Your task to perform on an android device: allow notifications from all sites in the chrome app Image 0: 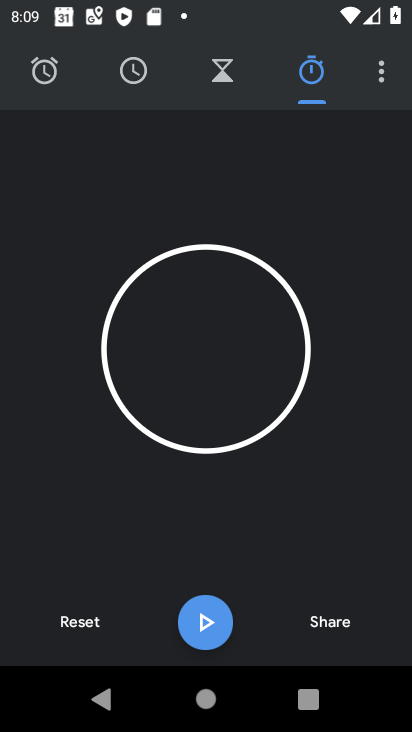
Step 0: press home button
Your task to perform on an android device: allow notifications from all sites in the chrome app Image 1: 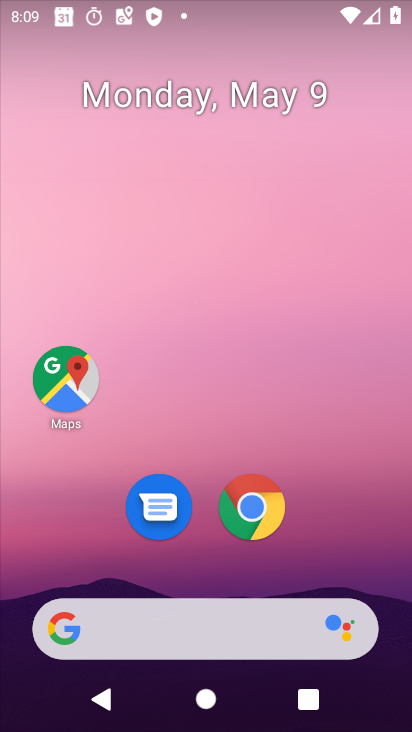
Step 1: drag from (298, 651) to (241, 207)
Your task to perform on an android device: allow notifications from all sites in the chrome app Image 2: 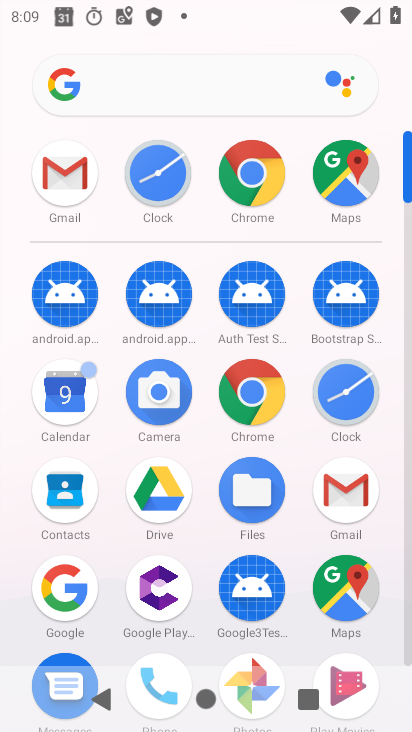
Step 2: click (261, 400)
Your task to perform on an android device: allow notifications from all sites in the chrome app Image 3: 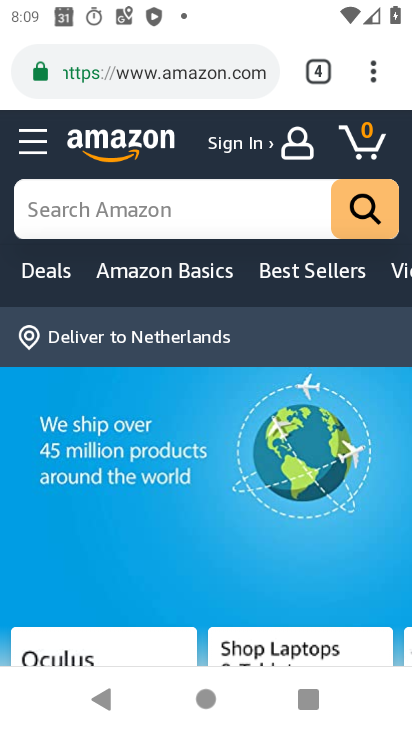
Step 3: click (372, 88)
Your task to perform on an android device: allow notifications from all sites in the chrome app Image 4: 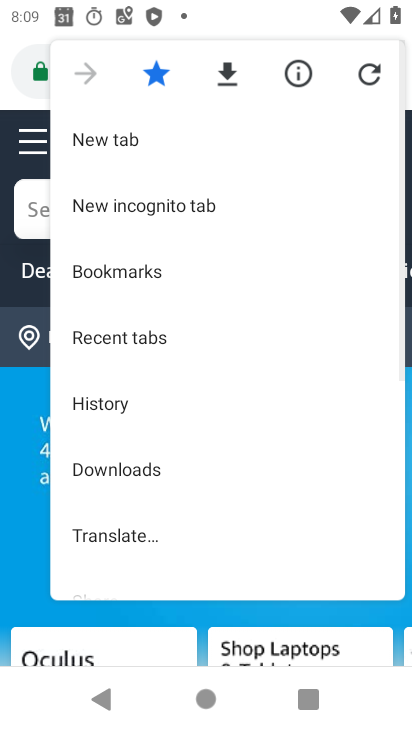
Step 4: drag from (106, 542) to (230, 213)
Your task to perform on an android device: allow notifications from all sites in the chrome app Image 5: 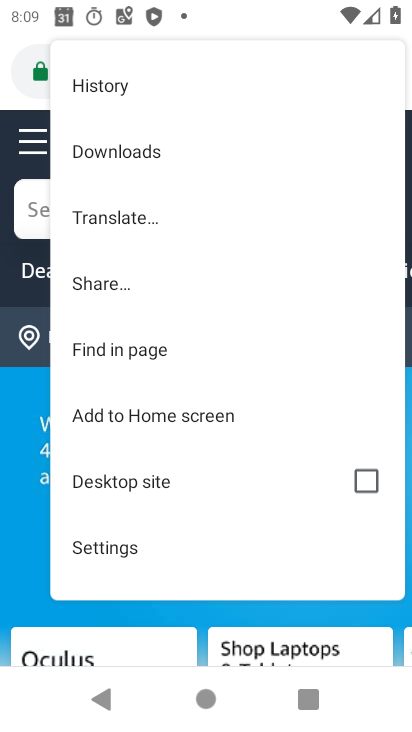
Step 5: click (113, 547)
Your task to perform on an android device: allow notifications from all sites in the chrome app Image 6: 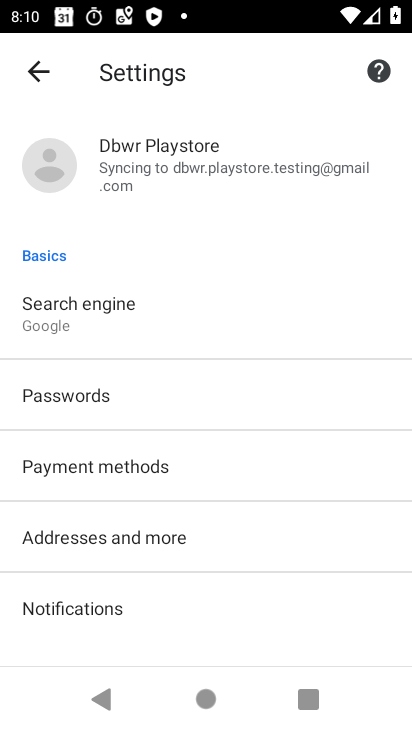
Step 6: drag from (159, 646) to (239, 212)
Your task to perform on an android device: allow notifications from all sites in the chrome app Image 7: 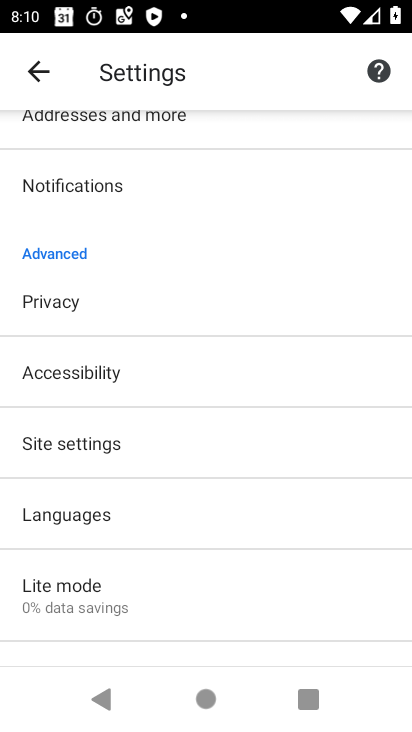
Step 7: click (142, 444)
Your task to perform on an android device: allow notifications from all sites in the chrome app Image 8: 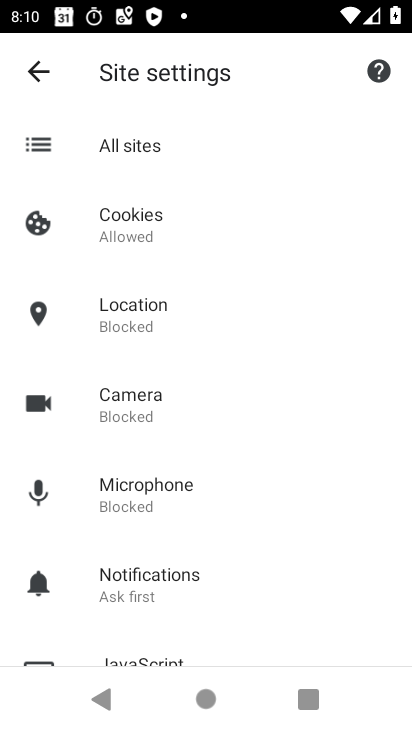
Step 8: drag from (111, 593) to (152, 669)
Your task to perform on an android device: allow notifications from all sites in the chrome app Image 9: 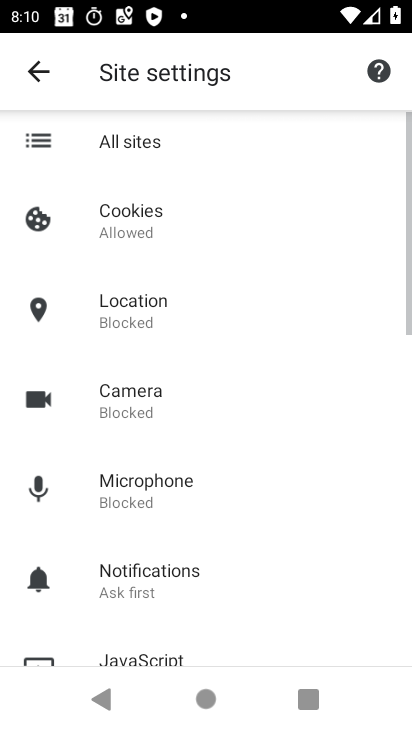
Step 9: click (127, 137)
Your task to perform on an android device: allow notifications from all sites in the chrome app Image 10: 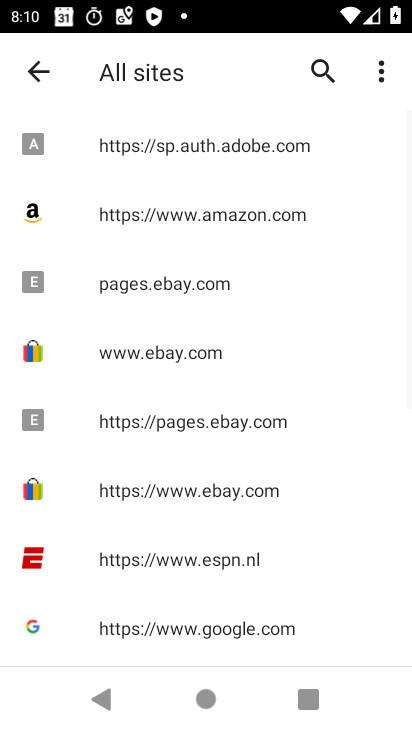
Step 10: click (40, 74)
Your task to perform on an android device: allow notifications from all sites in the chrome app Image 11: 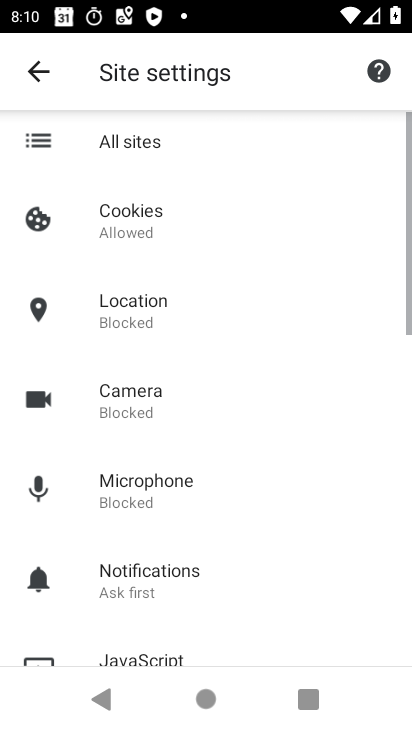
Step 11: click (126, 586)
Your task to perform on an android device: allow notifications from all sites in the chrome app Image 12: 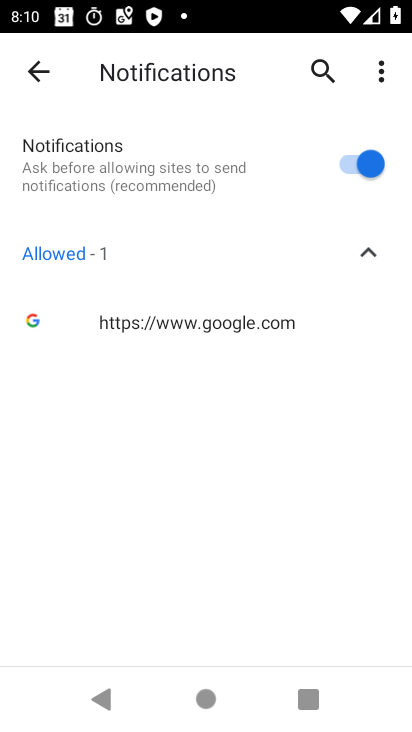
Step 12: click (346, 156)
Your task to perform on an android device: allow notifications from all sites in the chrome app Image 13: 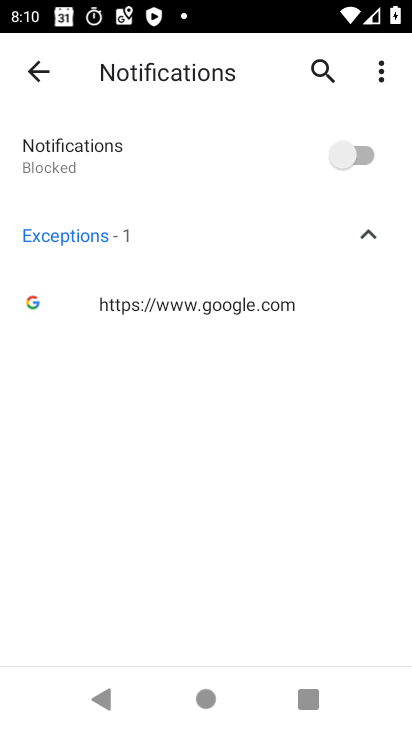
Step 13: click (347, 155)
Your task to perform on an android device: allow notifications from all sites in the chrome app Image 14: 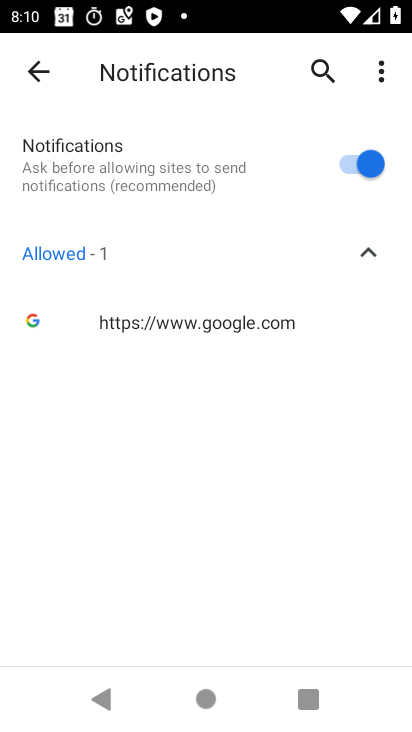
Step 14: task complete